Your task to perform on an android device: Set the phone to "Do not disturb". Image 0: 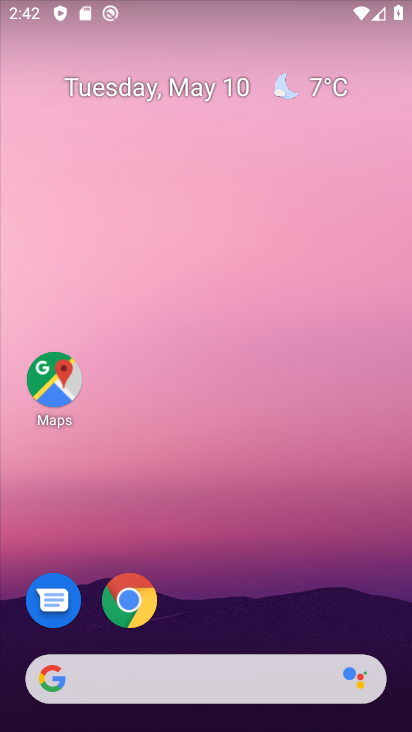
Step 0: drag from (290, 664) to (263, 97)
Your task to perform on an android device: Set the phone to "Do not disturb". Image 1: 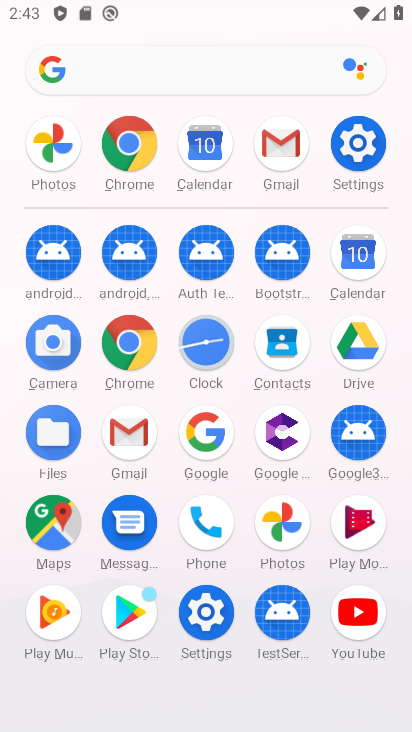
Step 1: click (353, 156)
Your task to perform on an android device: Set the phone to "Do not disturb". Image 2: 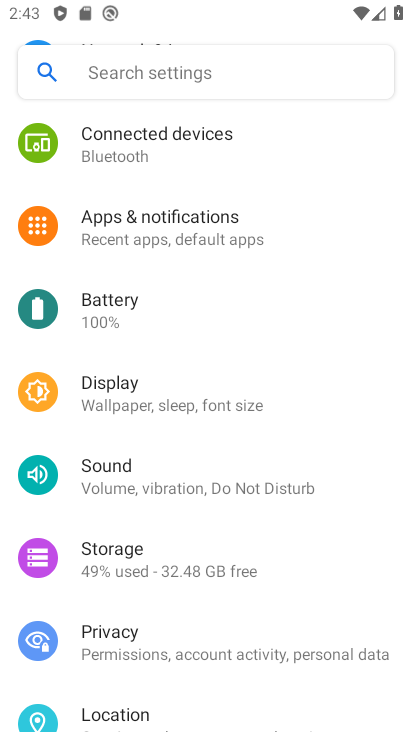
Step 2: click (171, 483)
Your task to perform on an android device: Set the phone to "Do not disturb". Image 3: 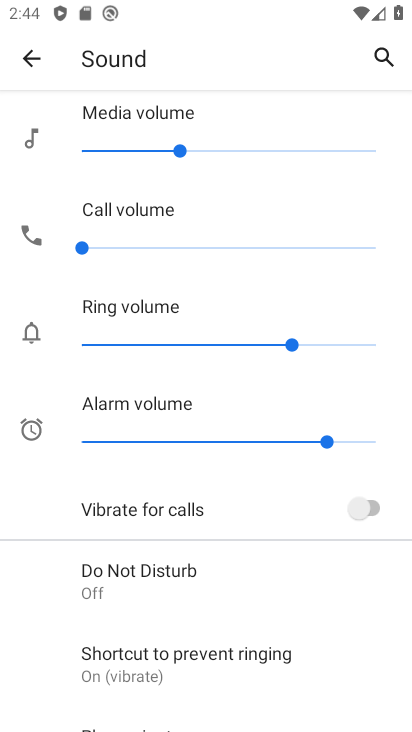
Step 3: click (206, 588)
Your task to perform on an android device: Set the phone to "Do not disturb". Image 4: 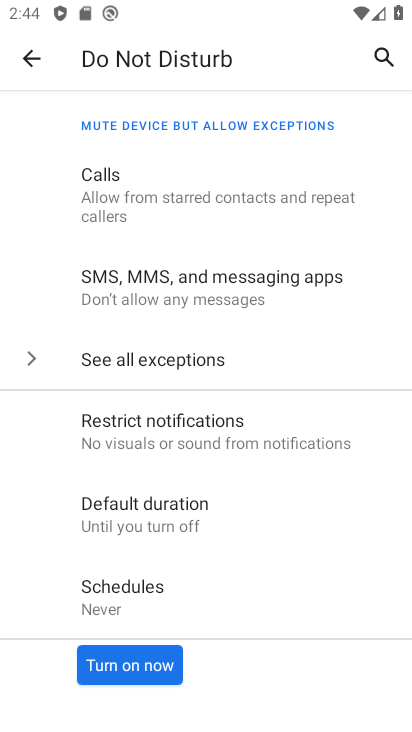
Step 4: click (106, 693)
Your task to perform on an android device: Set the phone to "Do not disturb". Image 5: 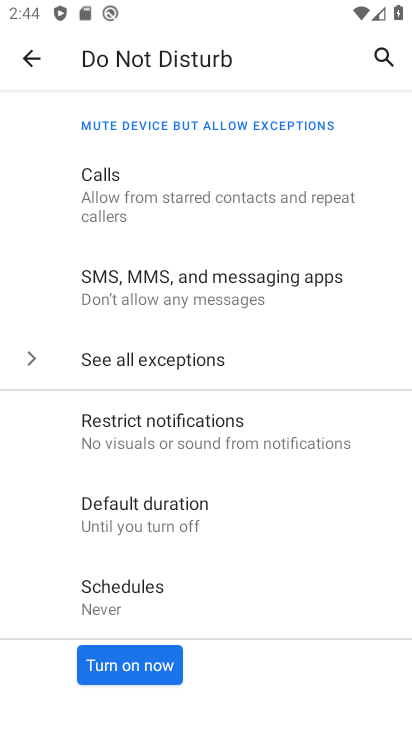
Step 5: click (117, 679)
Your task to perform on an android device: Set the phone to "Do not disturb". Image 6: 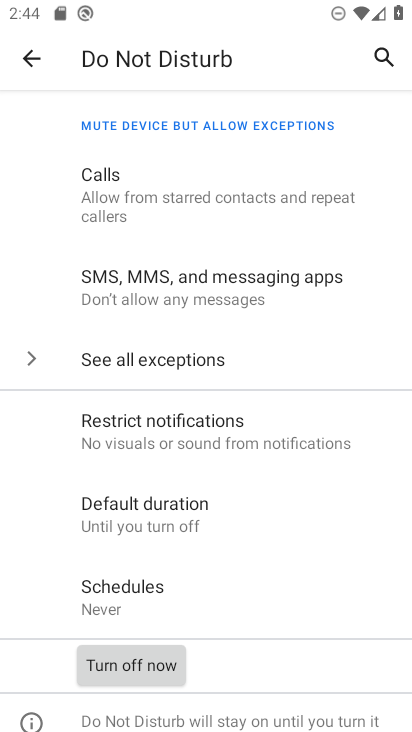
Step 6: task complete